Your task to perform on an android device: turn off wifi Image 0: 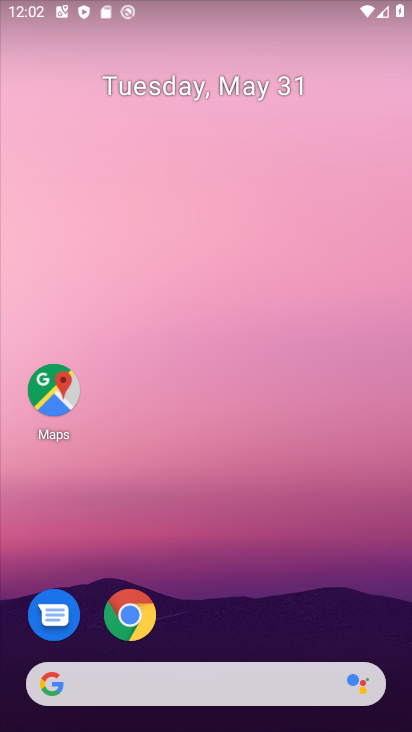
Step 0: drag from (214, 620) to (254, 363)
Your task to perform on an android device: turn off wifi Image 1: 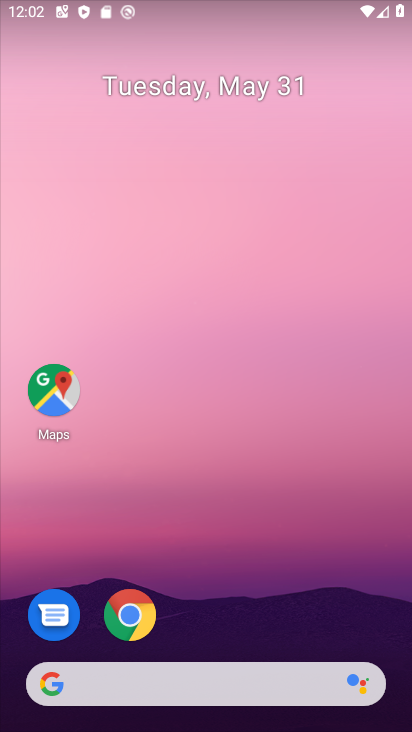
Step 1: drag from (189, 581) to (327, 0)
Your task to perform on an android device: turn off wifi Image 2: 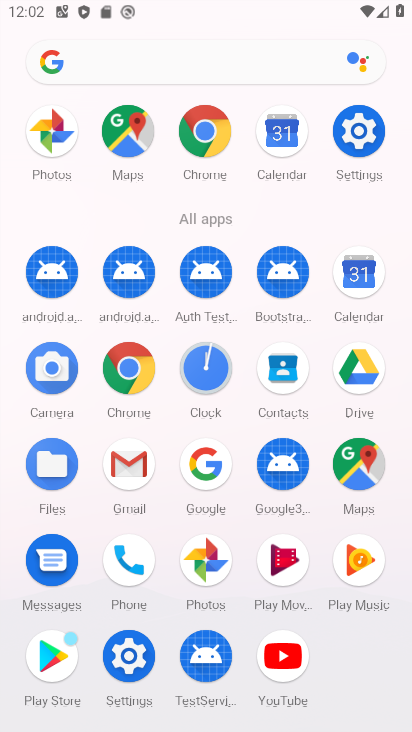
Step 2: click (367, 152)
Your task to perform on an android device: turn off wifi Image 3: 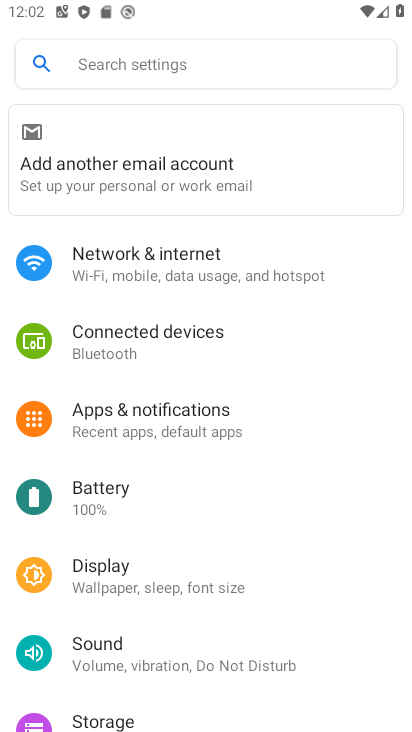
Step 3: click (185, 268)
Your task to perform on an android device: turn off wifi Image 4: 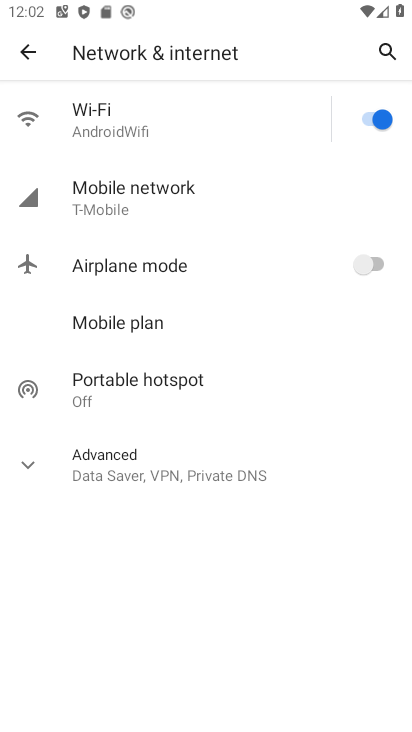
Step 4: click (347, 114)
Your task to perform on an android device: turn off wifi Image 5: 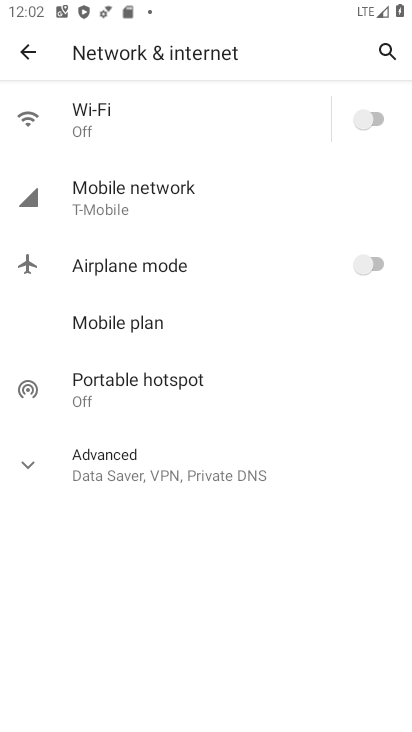
Step 5: task complete